Your task to perform on an android device: What's on my calendar today? Image 0: 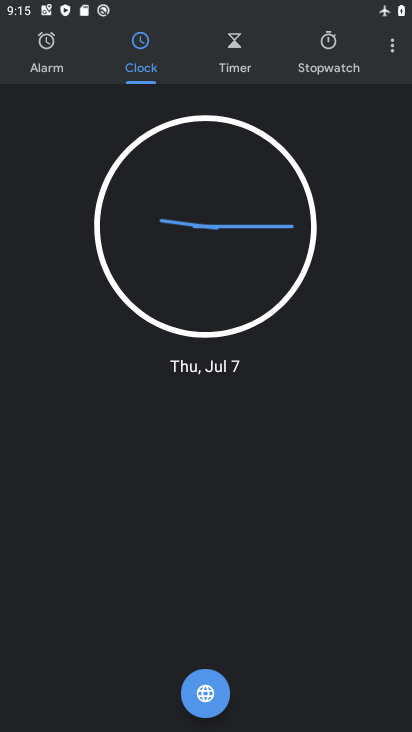
Step 0: press home button
Your task to perform on an android device: What's on my calendar today? Image 1: 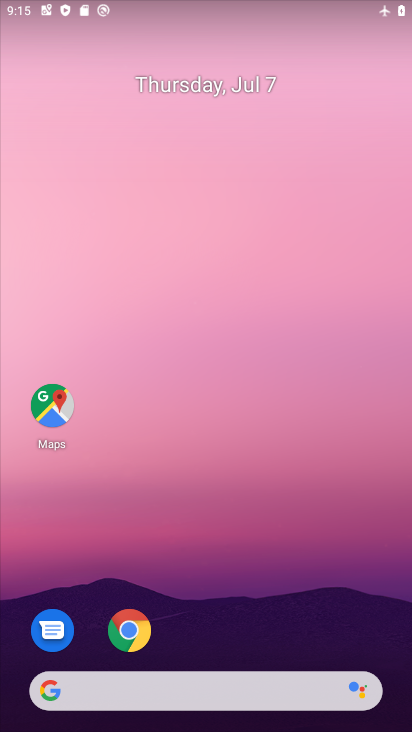
Step 1: drag from (217, 631) to (225, 207)
Your task to perform on an android device: What's on my calendar today? Image 2: 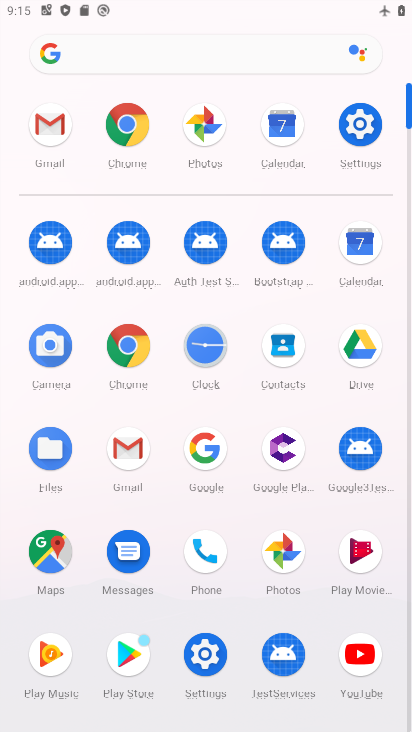
Step 2: click (344, 256)
Your task to perform on an android device: What's on my calendar today? Image 3: 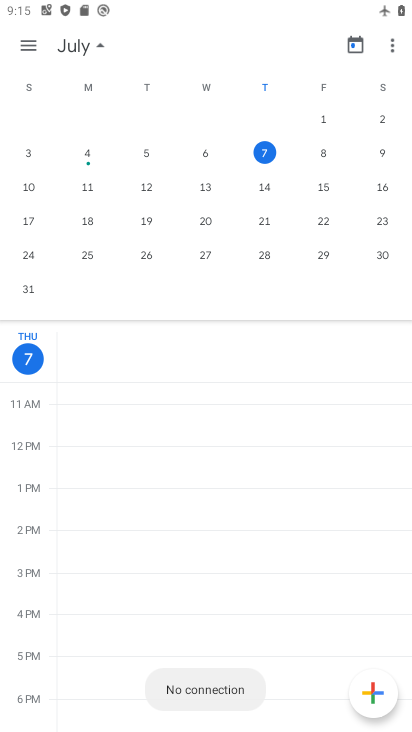
Step 3: click (263, 151)
Your task to perform on an android device: What's on my calendar today? Image 4: 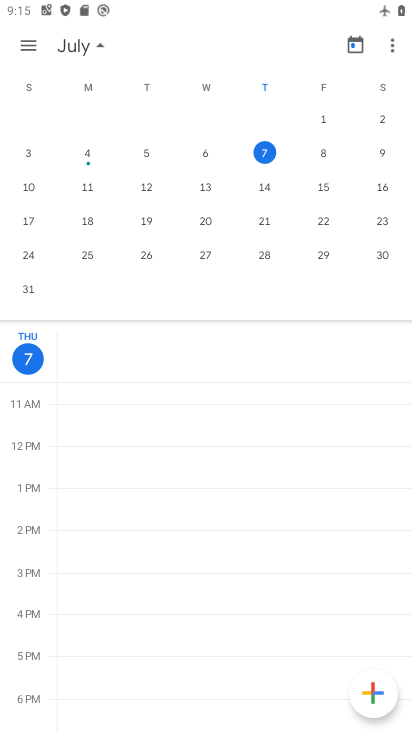
Step 4: task complete